Your task to perform on an android device: open app "Fetch Rewards" (install if not already installed), go to login, and select forgot password Image 0: 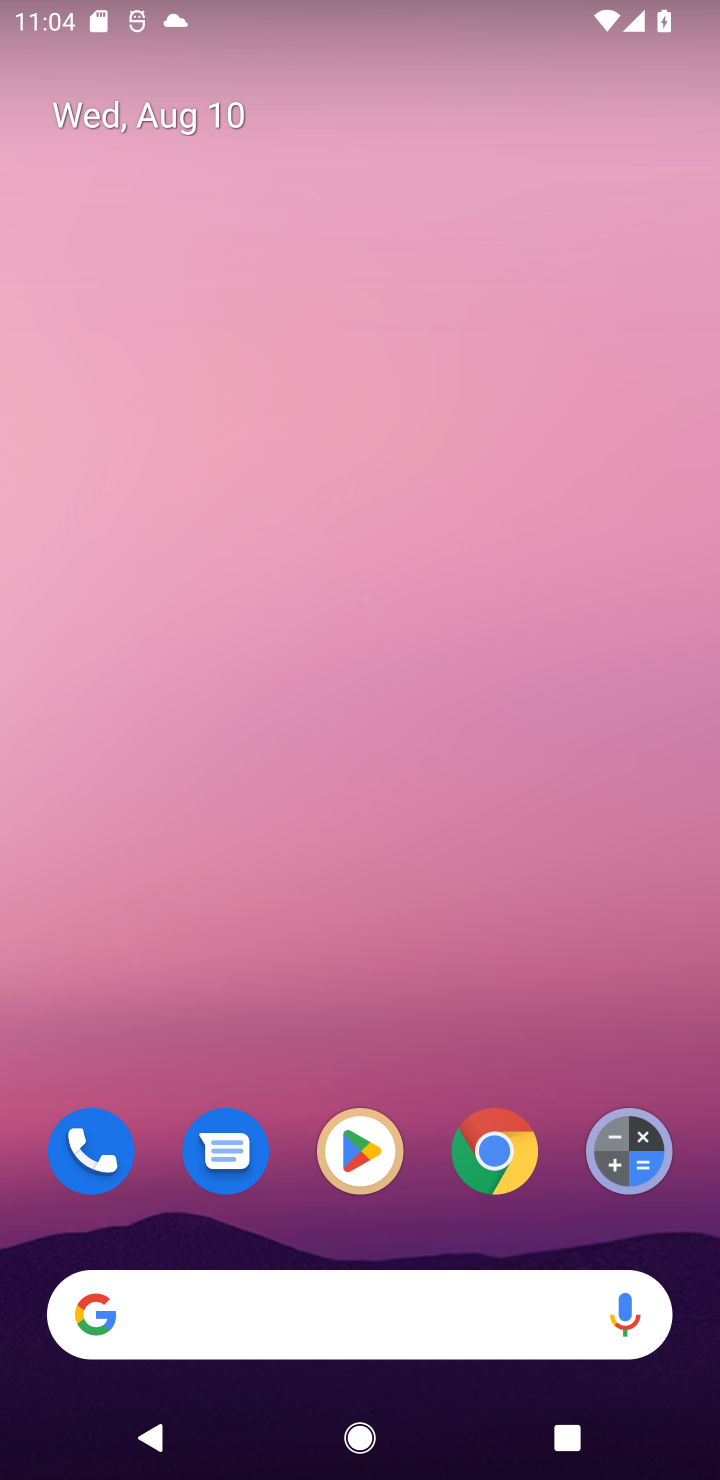
Step 0: press home button
Your task to perform on an android device: open app "Fetch Rewards" (install if not already installed), go to login, and select forgot password Image 1: 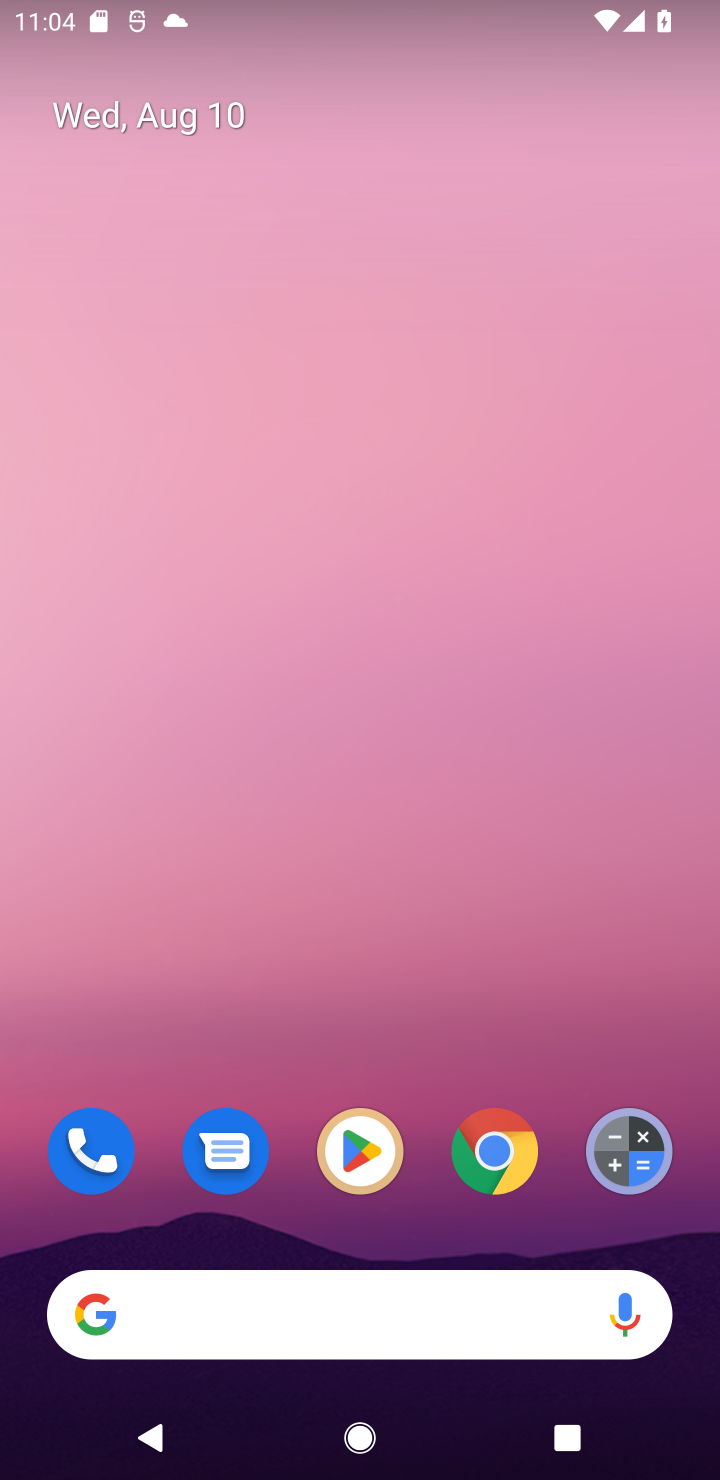
Step 1: drag from (417, 1104) to (407, 145)
Your task to perform on an android device: open app "Fetch Rewards" (install if not already installed), go to login, and select forgot password Image 2: 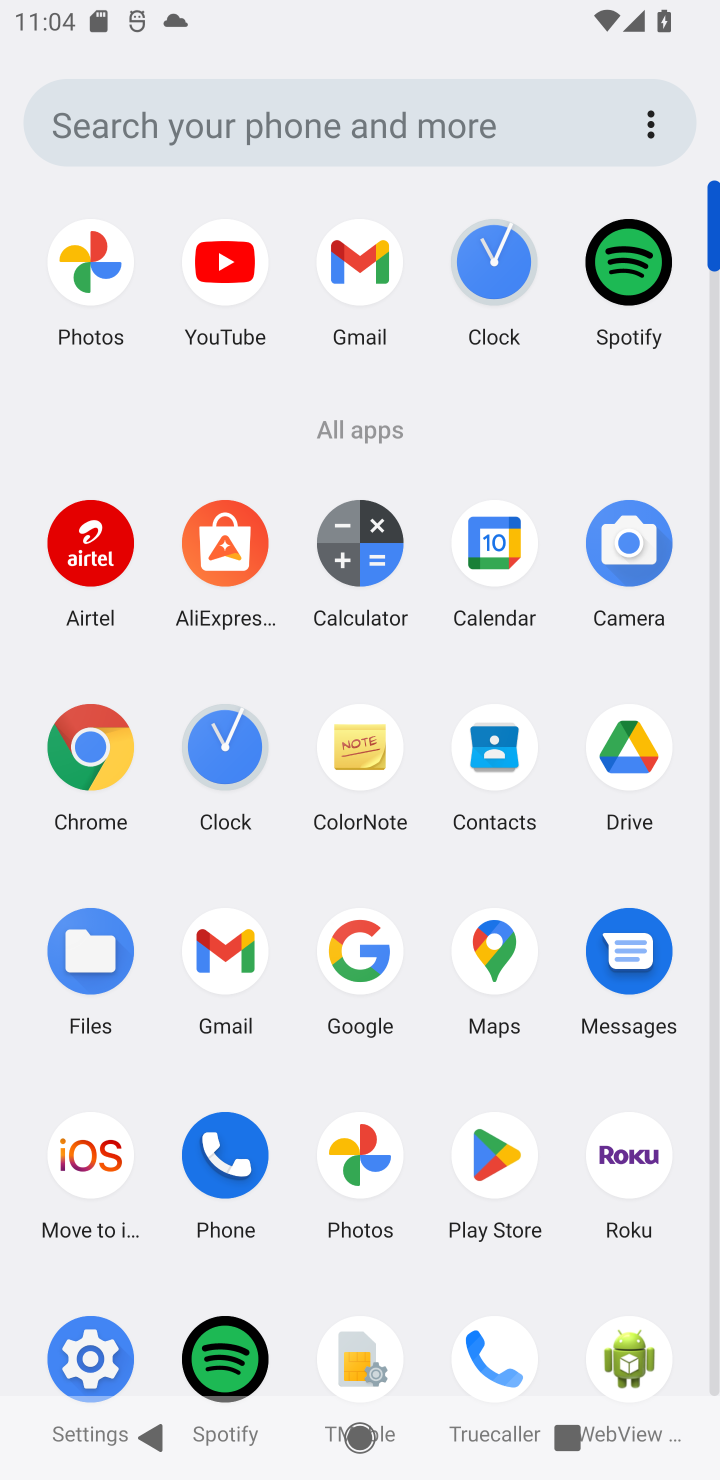
Step 2: click (496, 1146)
Your task to perform on an android device: open app "Fetch Rewards" (install if not already installed), go to login, and select forgot password Image 3: 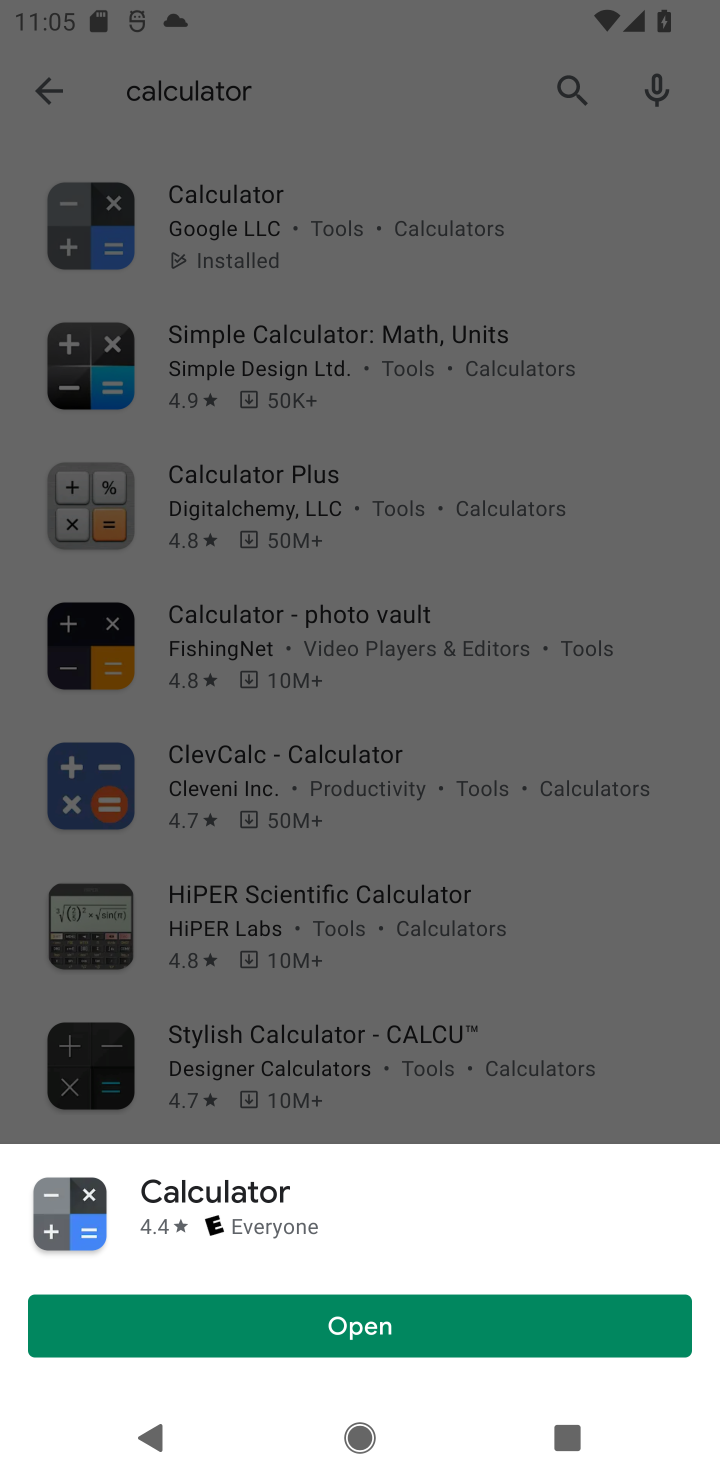
Step 3: click (270, 899)
Your task to perform on an android device: open app "Fetch Rewards" (install if not already installed), go to login, and select forgot password Image 4: 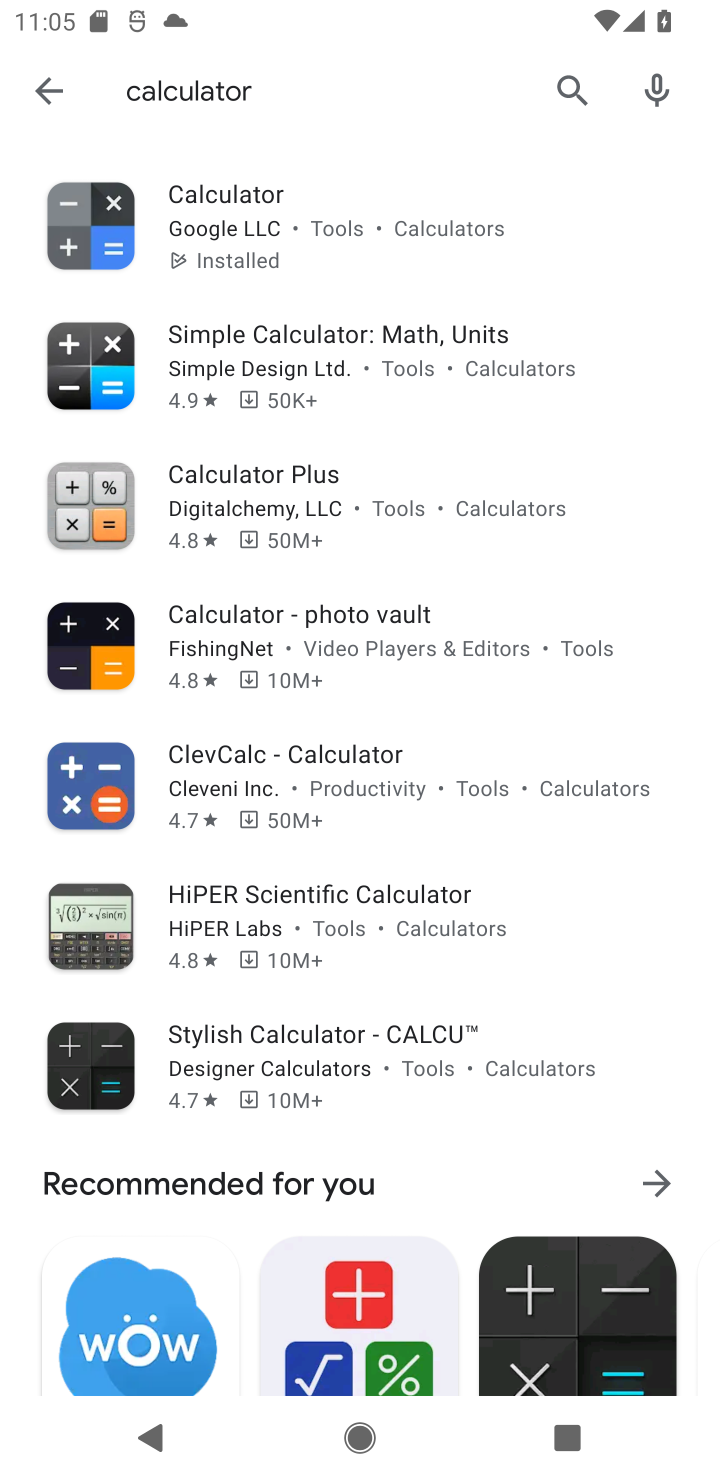
Step 4: click (571, 93)
Your task to perform on an android device: open app "Fetch Rewards" (install if not already installed), go to login, and select forgot password Image 5: 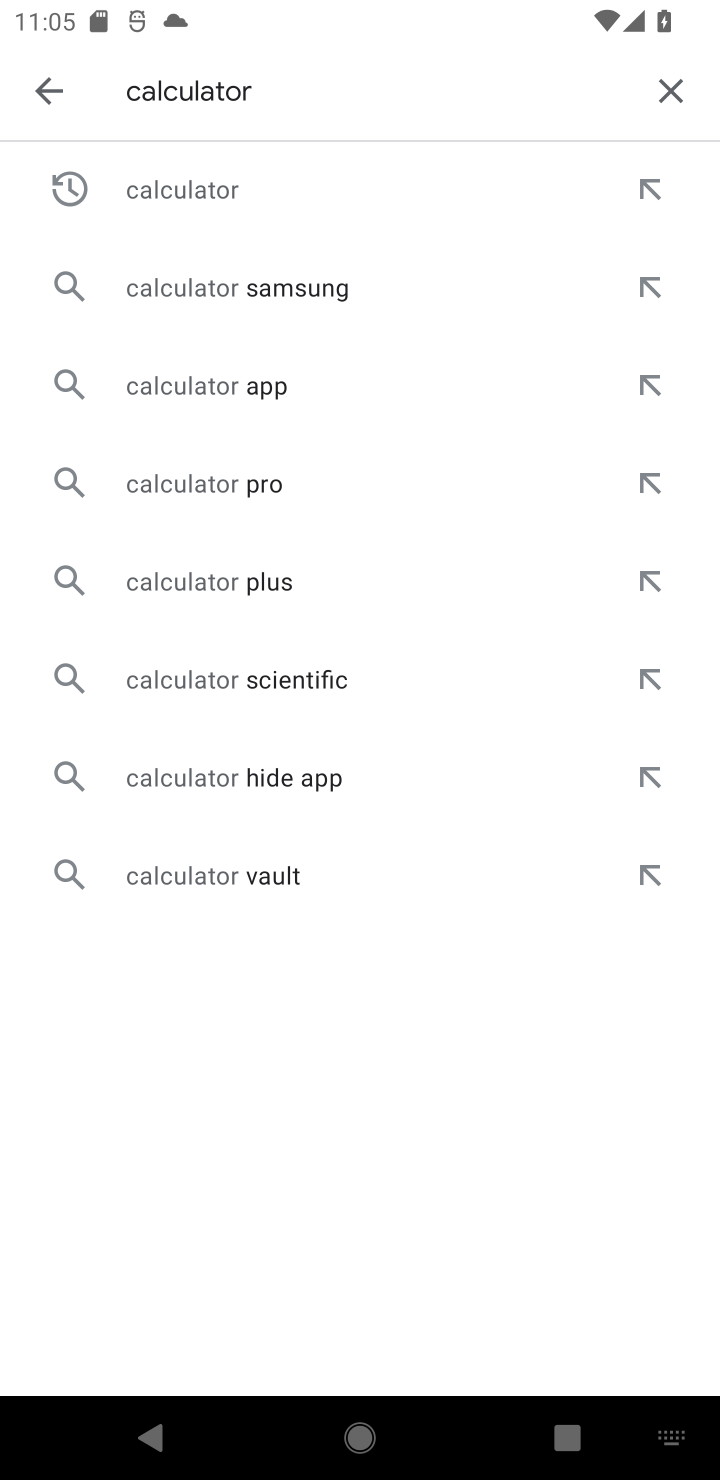
Step 5: click (670, 84)
Your task to perform on an android device: open app "Fetch Rewards" (install if not already installed), go to login, and select forgot password Image 6: 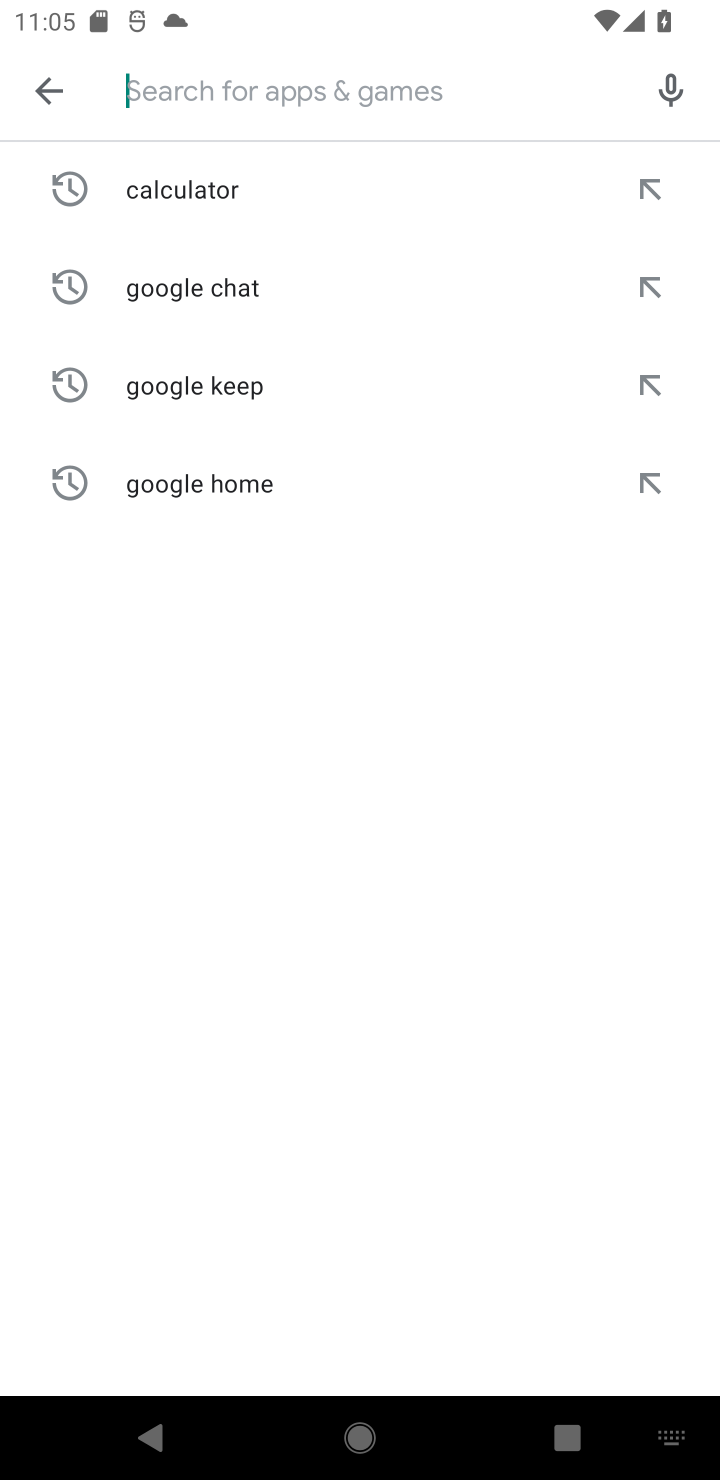
Step 6: type "Fetch Rewards"
Your task to perform on an android device: open app "Fetch Rewards" (install if not already installed), go to login, and select forgot password Image 7: 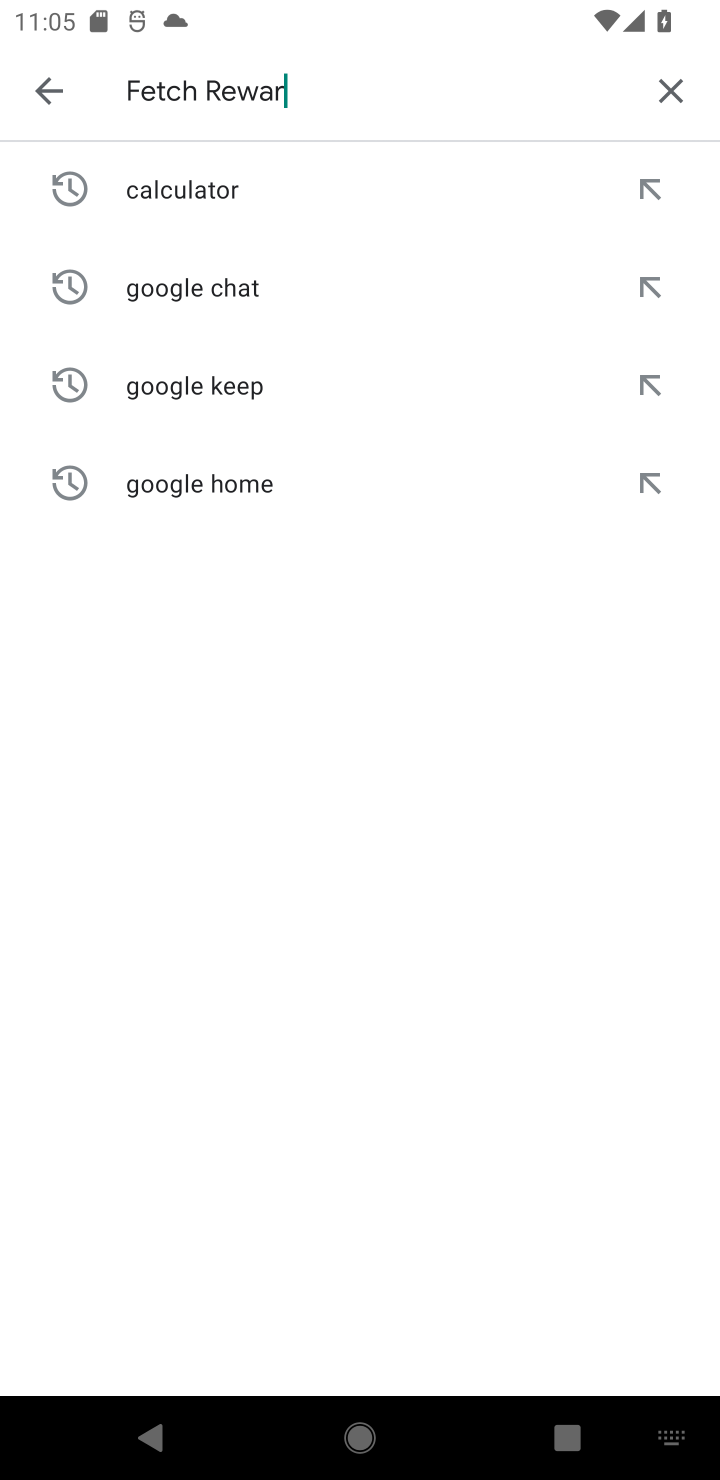
Step 7: type ""
Your task to perform on an android device: open app "Fetch Rewards" (install if not already installed), go to login, and select forgot password Image 8: 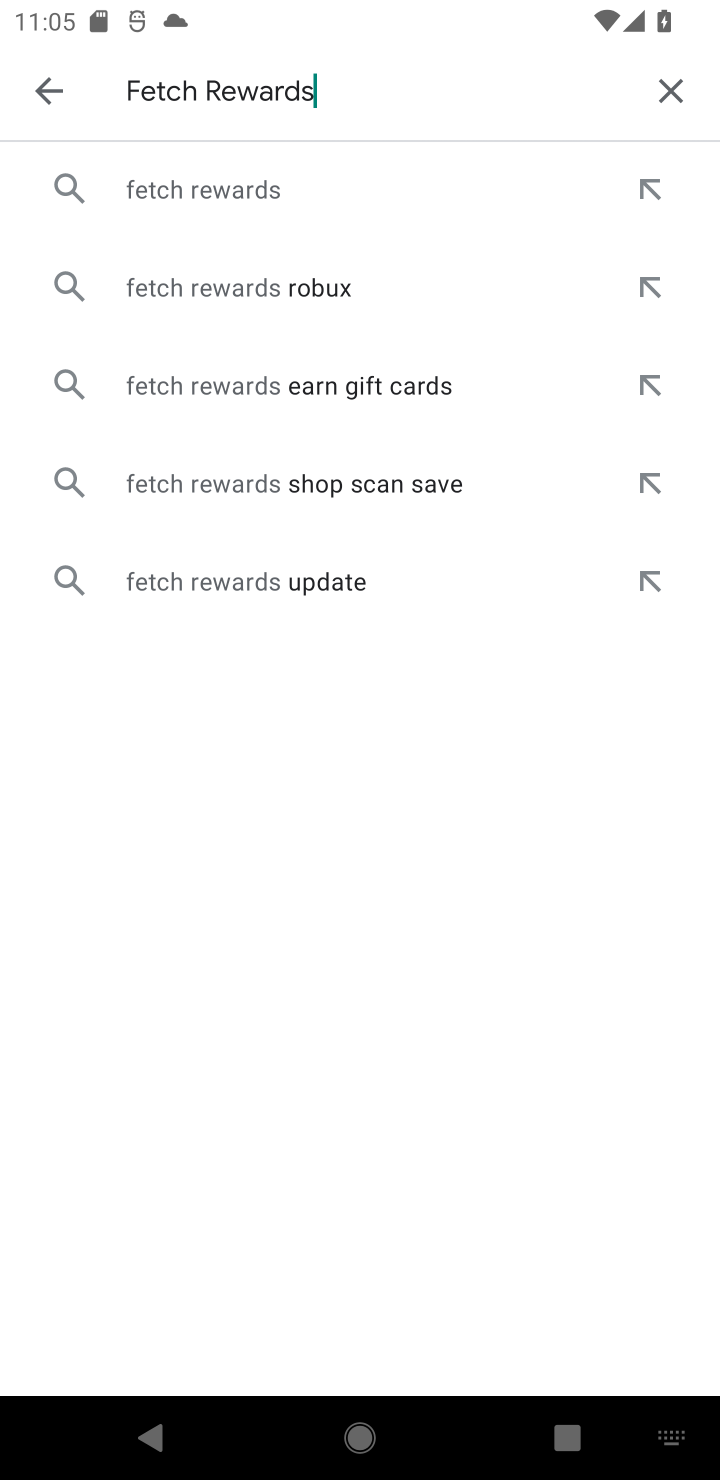
Step 8: click (297, 180)
Your task to perform on an android device: open app "Fetch Rewards" (install if not already installed), go to login, and select forgot password Image 9: 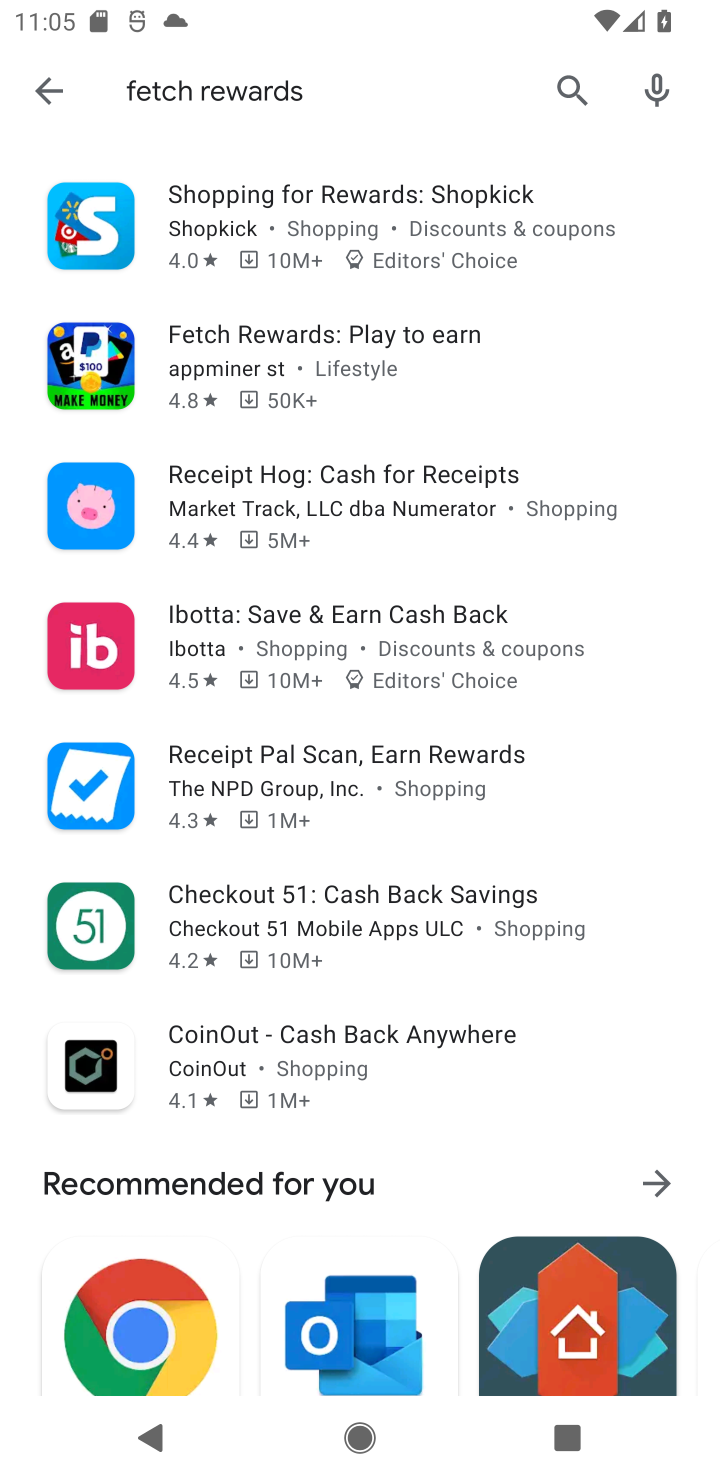
Step 9: click (300, 357)
Your task to perform on an android device: open app "Fetch Rewards" (install if not already installed), go to login, and select forgot password Image 10: 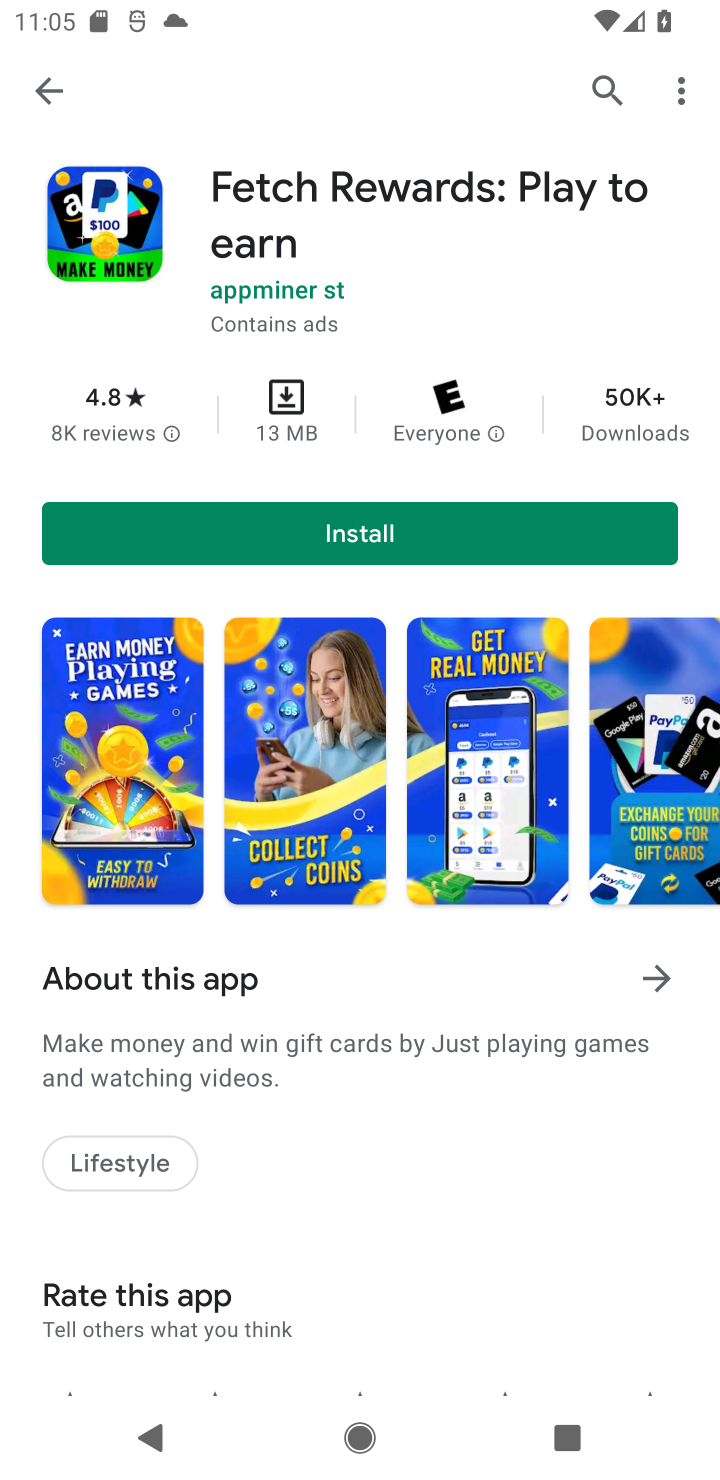
Step 10: click (370, 534)
Your task to perform on an android device: open app "Fetch Rewards" (install if not already installed), go to login, and select forgot password Image 11: 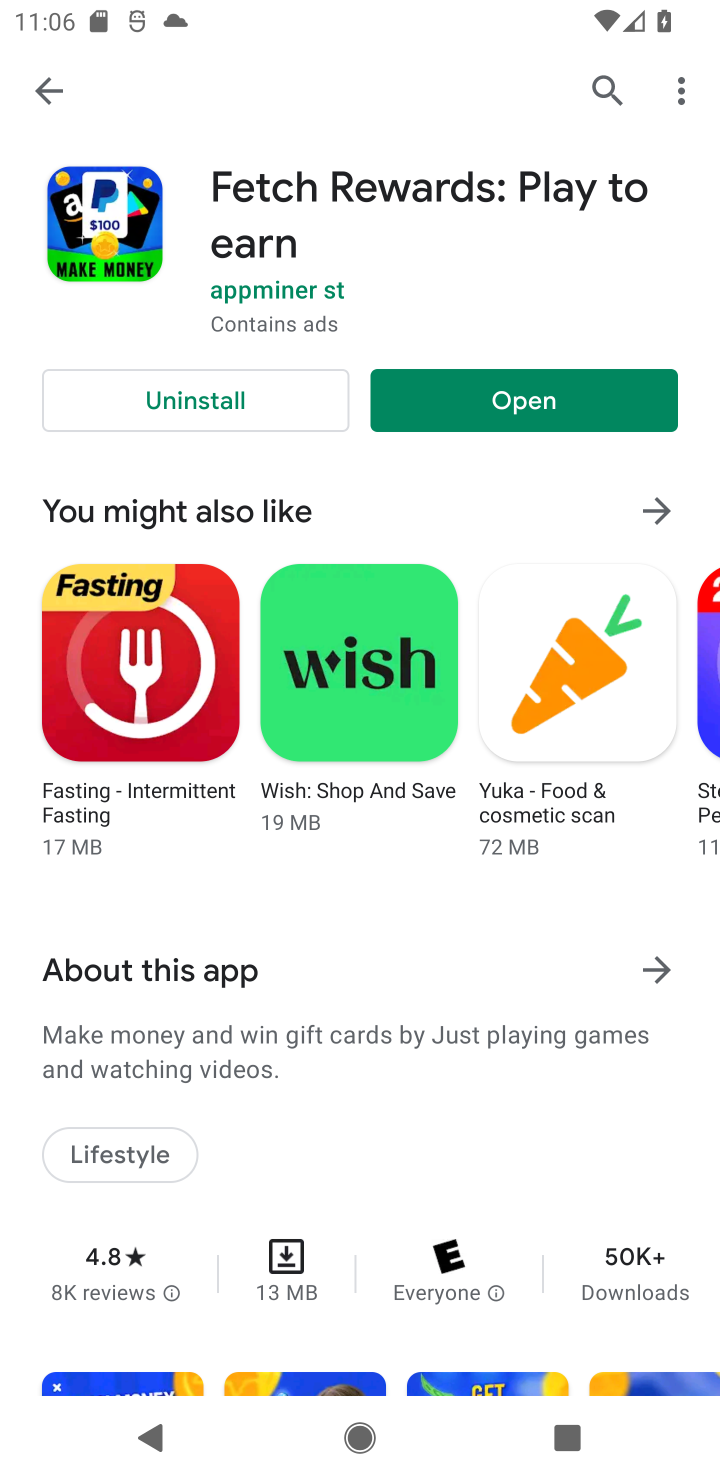
Step 11: click (514, 394)
Your task to perform on an android device: open app "Fetch Rewards" (install if not already installed), go to login, and select forgot password Image 12: 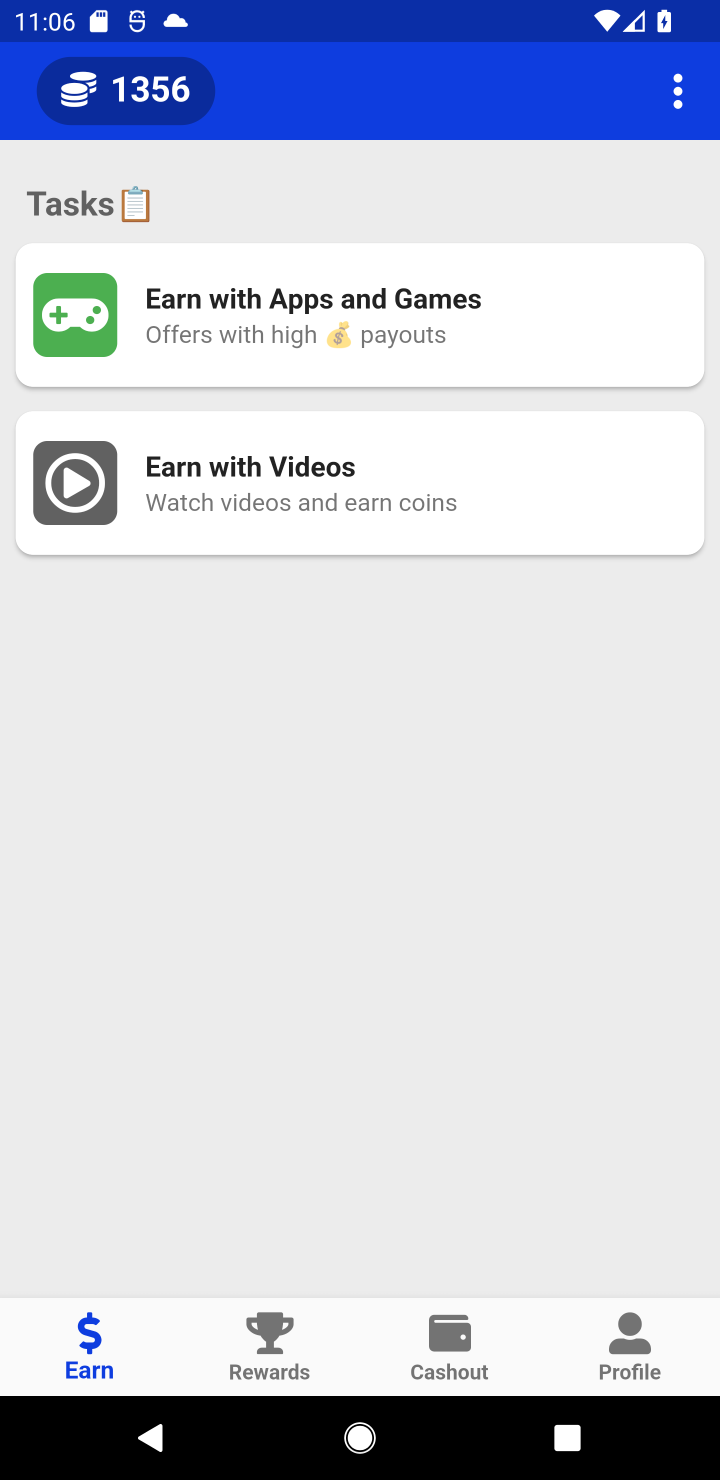
Step 12: click (639, 1354)
Your task to perform on an android device: open app "Fetch Rewards" (install if not already installed), go to login, and select forgot password Image 13: 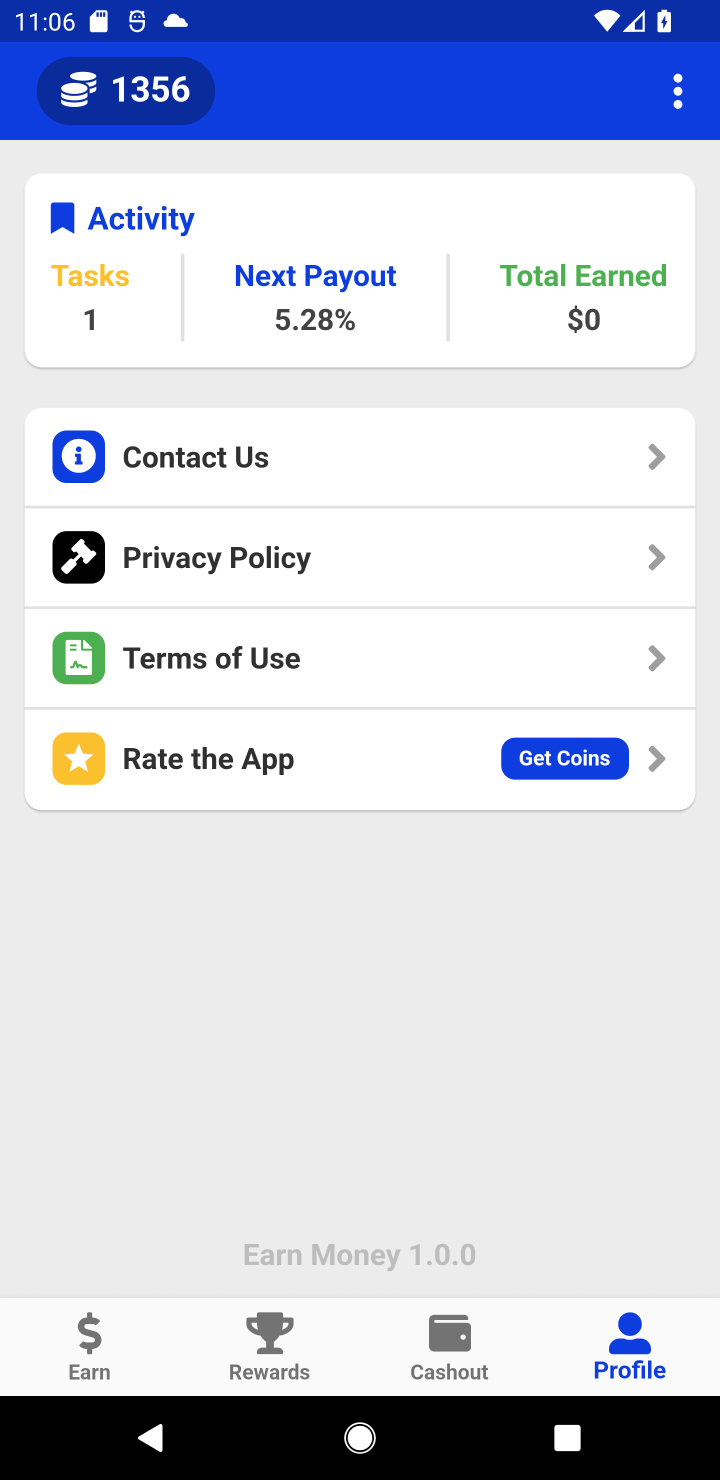
Step 13: click (678, 94)
Your task to perform on an android device: open app "Fetch Rewards" (install if not already installed), go to login, and select forgot password Image 14: 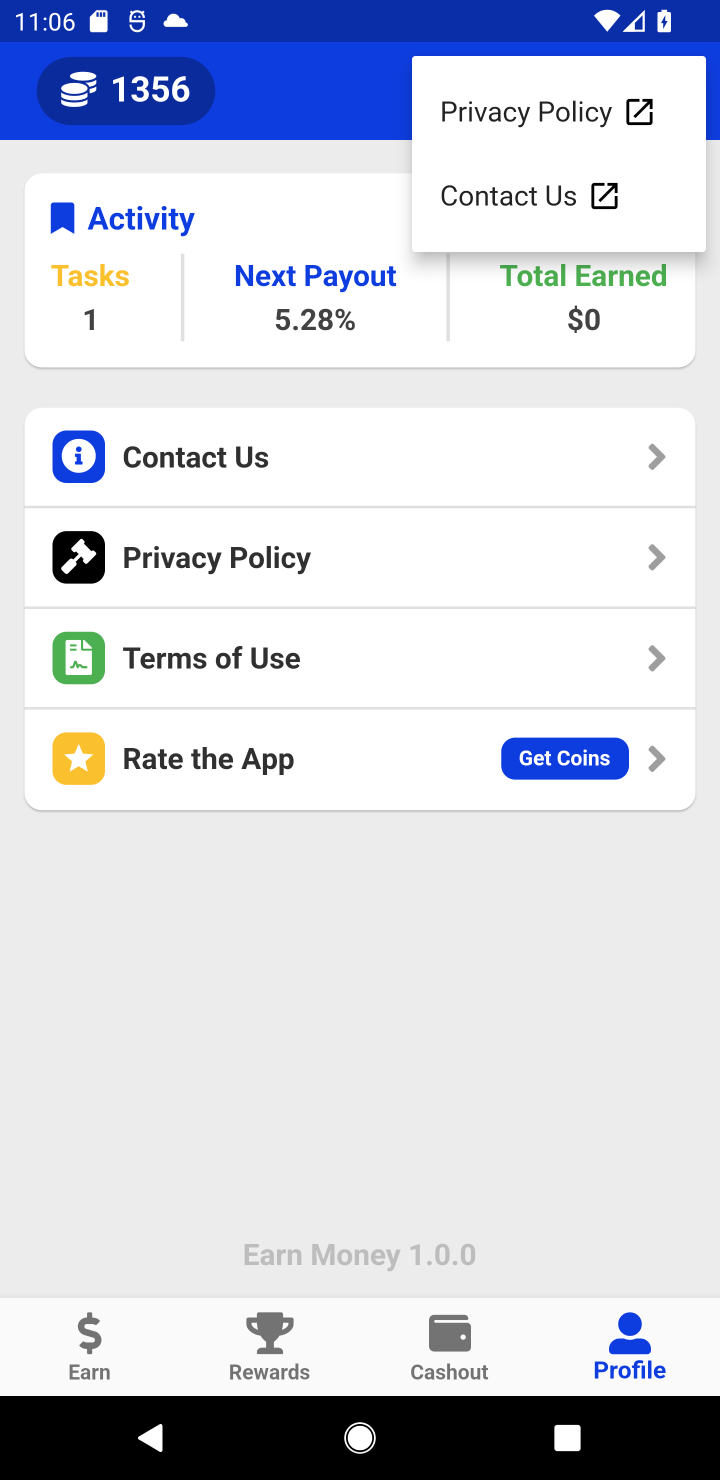
Step 14: click (392, 921)
Your task to perform on an android device: open app "Fetch Rewards" (install if not already installed), go to login, and select forgot password Image 15: 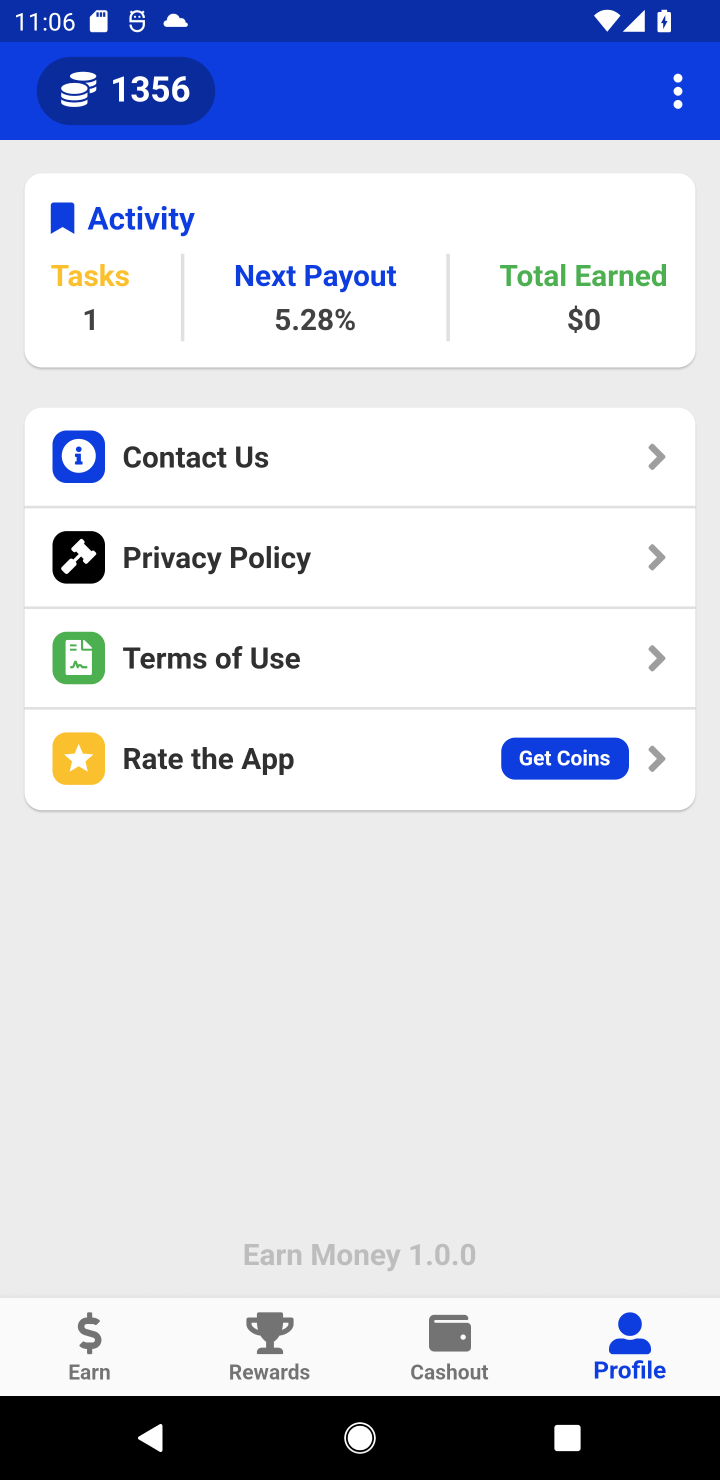
Step 15: task complete